Your task to perform on an android device: search for starred emails in the gmail app Image 0: 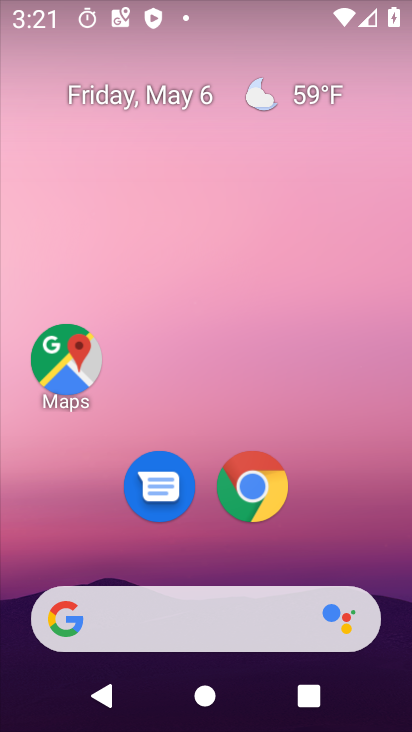
Step 0: drag from (331, 517) to (265, 2)
Your task to perform on an android device: search for starred emails in the gmail app Image 1: 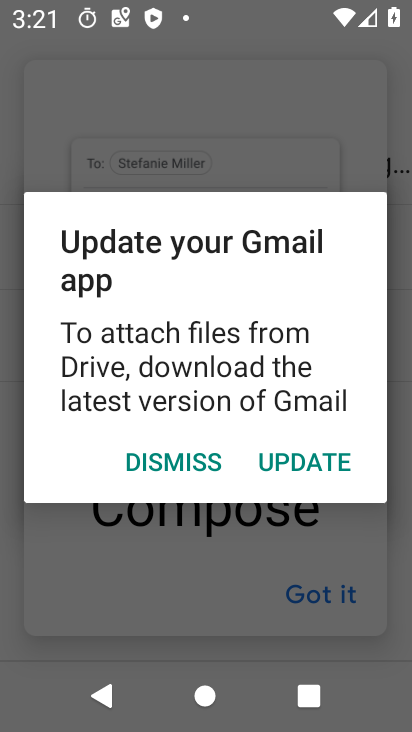
Step 1: click (187, 460)
Your task to perform on an android device: search for starred emails in the gmail app Image 2: 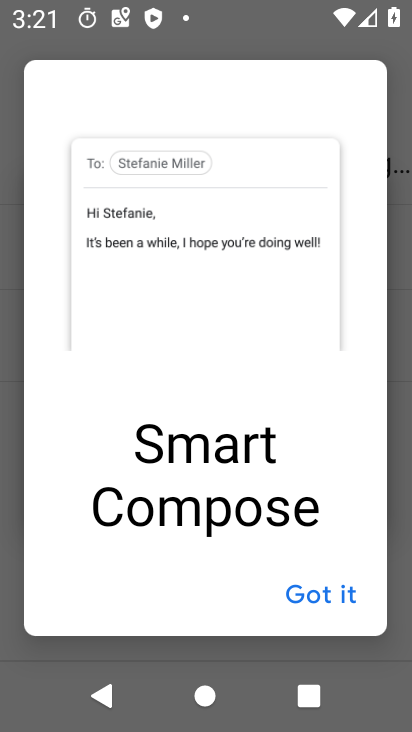
Step 2: click (325, 594)
Your task to perform on an android device: search for starred emails in the gmail app Image 3: 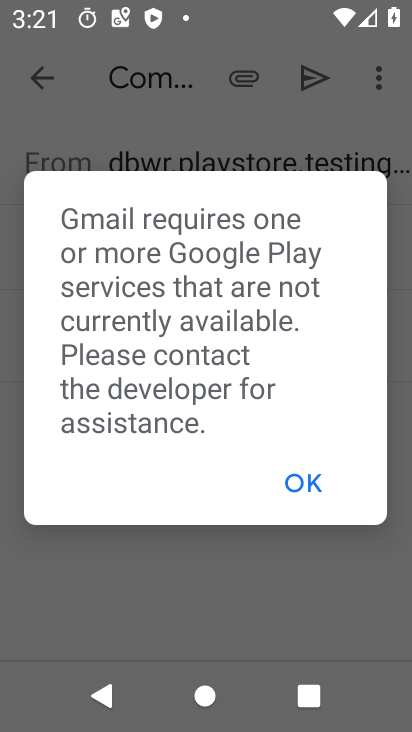
Step 3: click (304, 484)
Your task to perform on an android device: search for starred emails in the gmail app Image 4: 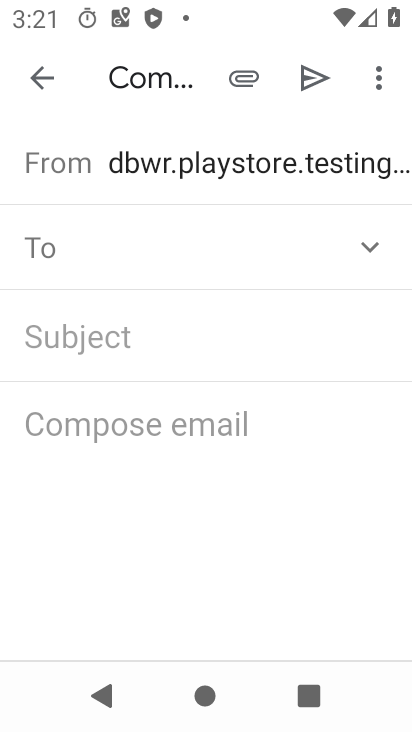
Step 4: click (45, 73)
Your task to perform on an android device: search for starred emails in the gmail app Image 5: 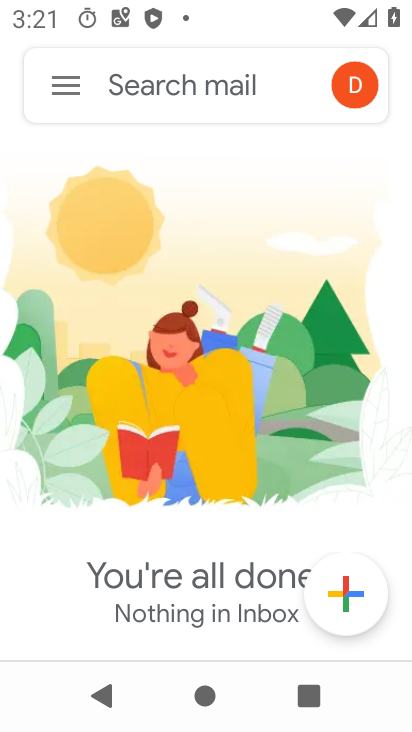
Step 5: click (65, 80)
Your task to perform on an android device: search for starred emails in the gmail app Image 6: 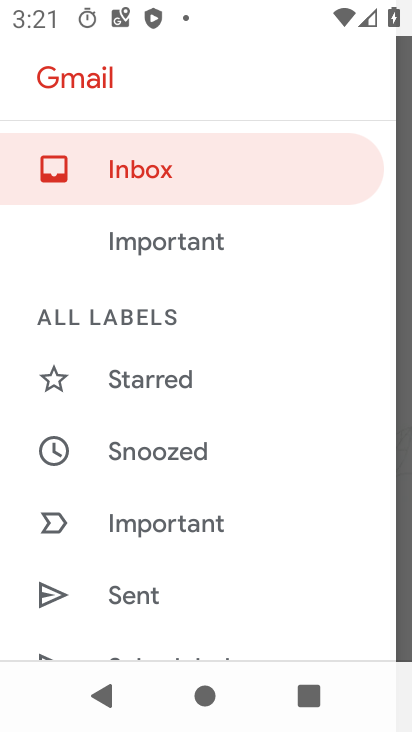
Step 6: click (163, 374)
Your task to perform on an android device: search for starred emails in the gmail app Image 7: 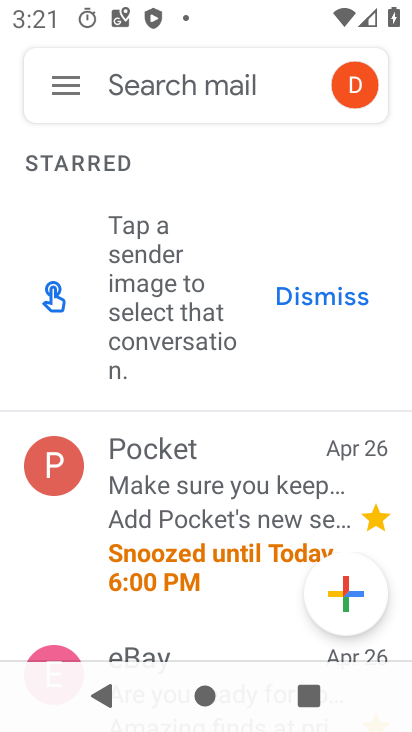
Step 7: task complete